Your task to perform on an android device: Open the calendar app, open the side menu, and click the "Day" option Image 0: 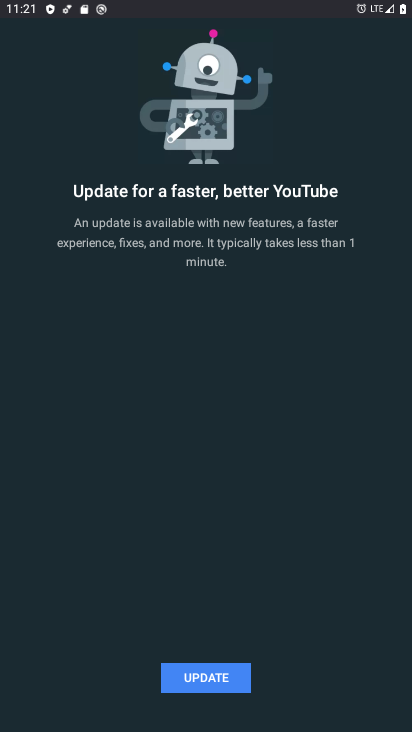
Step 0: press back button
Your task to perform on an android device: Open the calendar app, open the side menu, and click the "Day" option Image 1: 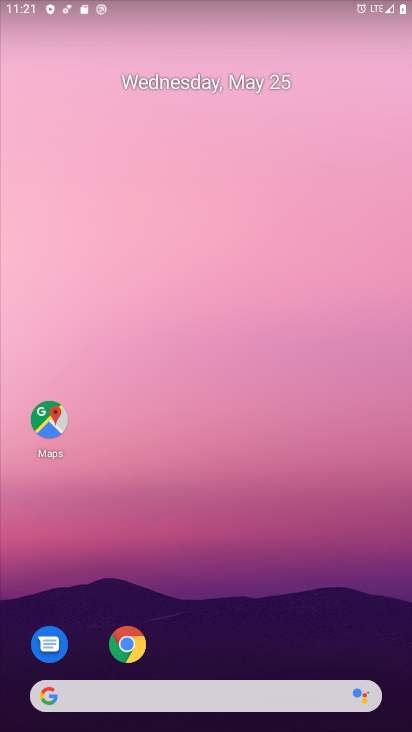
Step 1: drag from (275, 625) to (272, 167)
Your task to perform on an android device: Open the calendar app, open the side menu, and click the "Day" option Image 2: 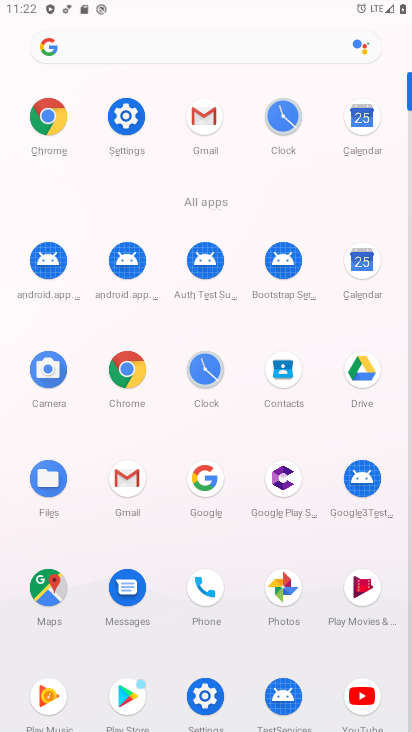
Step 2: click (364, 118)
Your task to perform on an android device: Open the calendar app, open the side menu, and click the "Day" option Image 3: 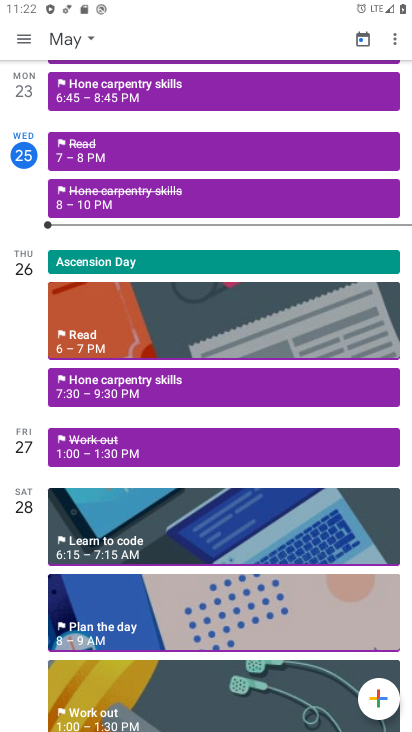
Step 3: click (28, 36)
Your task to perform on an android device: Open the calendar app, open the side menu, and click the "Day" option Image 4: 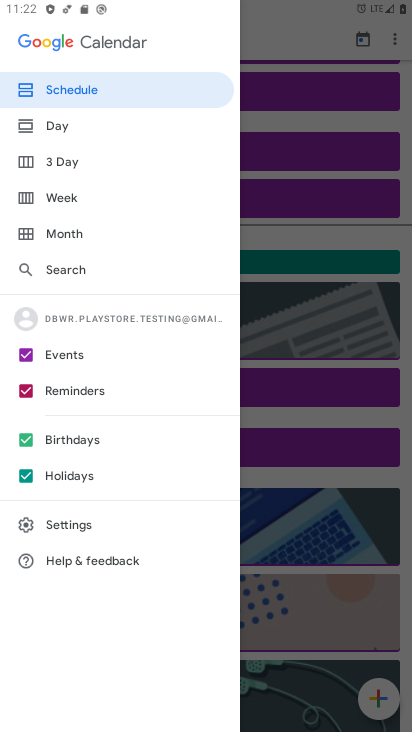
Step 4: click (54, 128)
Your task to perform on an android device: Open the calendar app, open the side menu, and click the "Day" option Image 5: 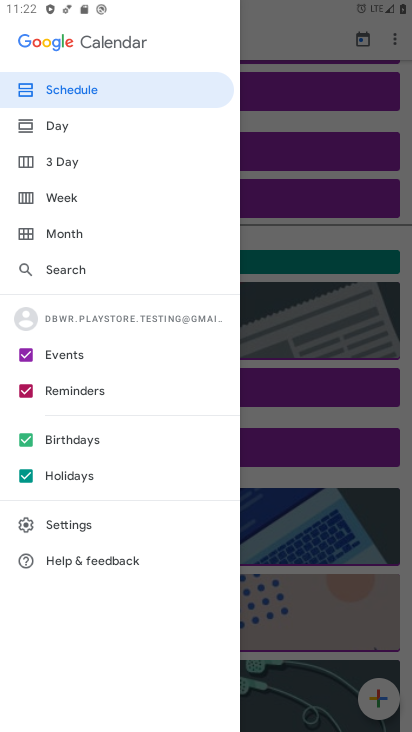
Step 5: click (54, 128)
Your task to perform on an android device: Open the calendar app, open the side menu, and click the "Day" option Image 6: 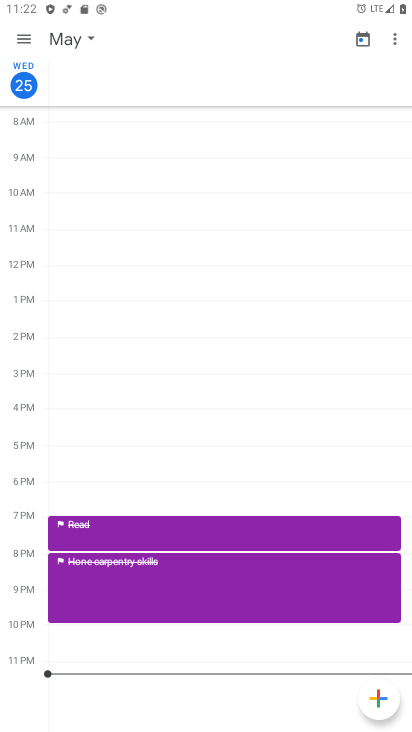
Step 6: task complete